Your task to perform on an android device: show emergency info Image 0: 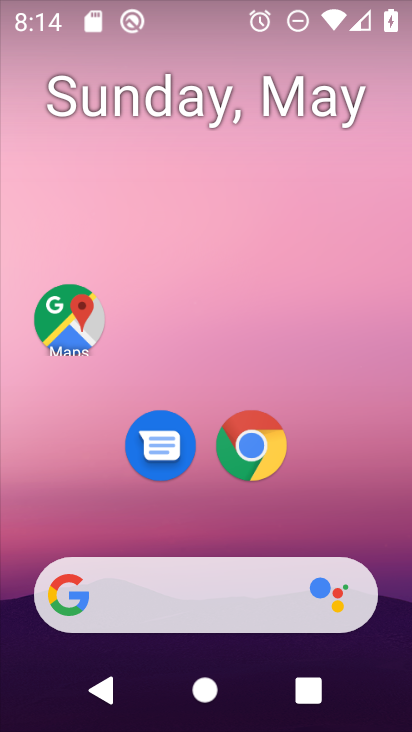
Step 0: drag from (334, 599) to (277, 183)
Your task to perform on an android device: show emergency info Image 1: 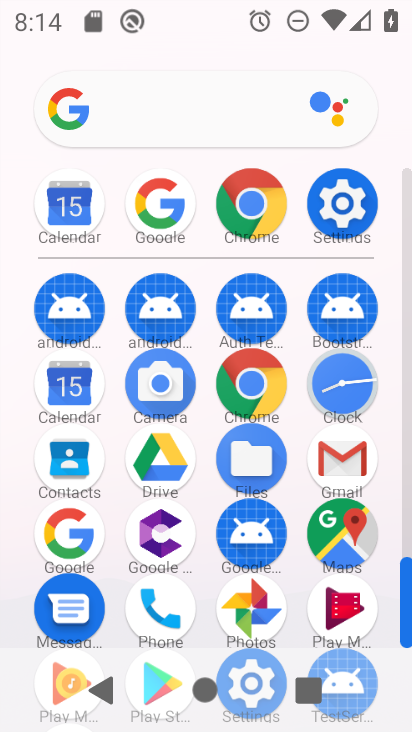
Step 1: click (349, 226)
Your task to perform on an android device: show emergency info Image 2: 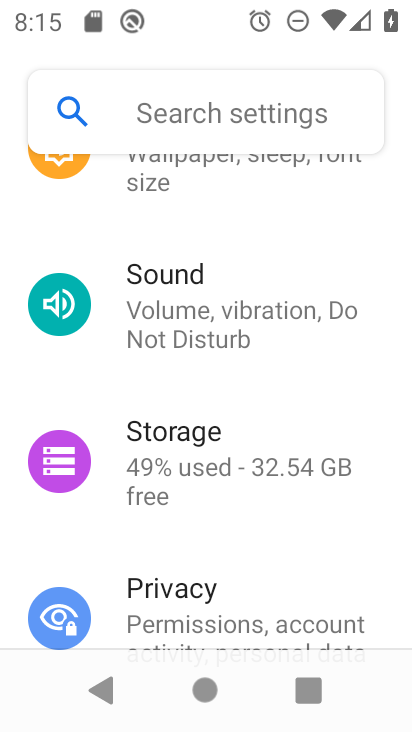
Step 2: drag from (274, 515) to (319, 155)
Your task to perform on an android device: show emergency info Image 3: 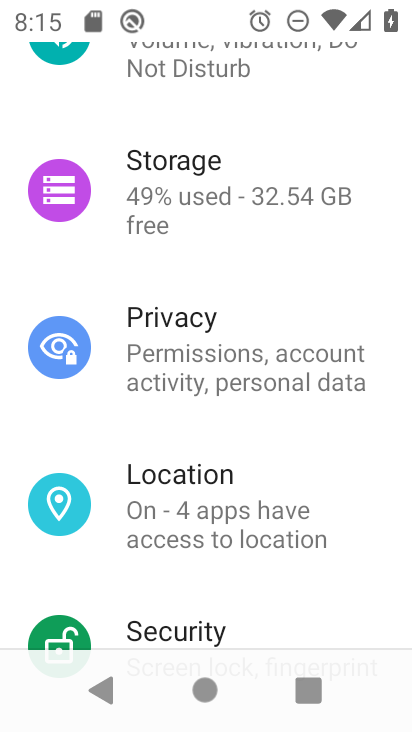
Step 3: drag from (297, 478) to (360, 173)
Your task to perform on an android device: show emergency info Image 4: 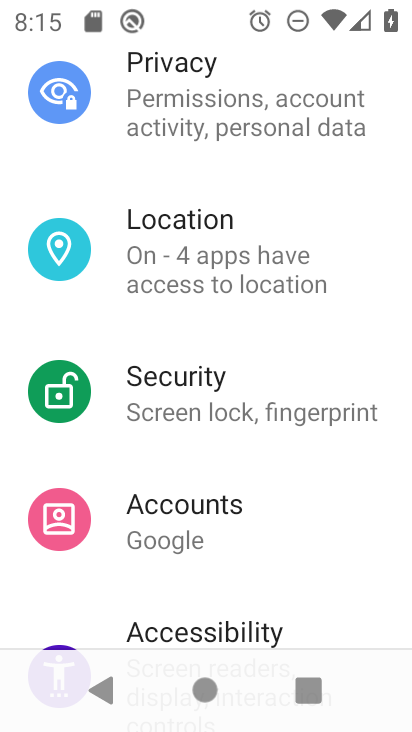
Step 4: drag from (247, 451) to (255, 342)
Your task to perform on an android device: show emergency info Image 5: 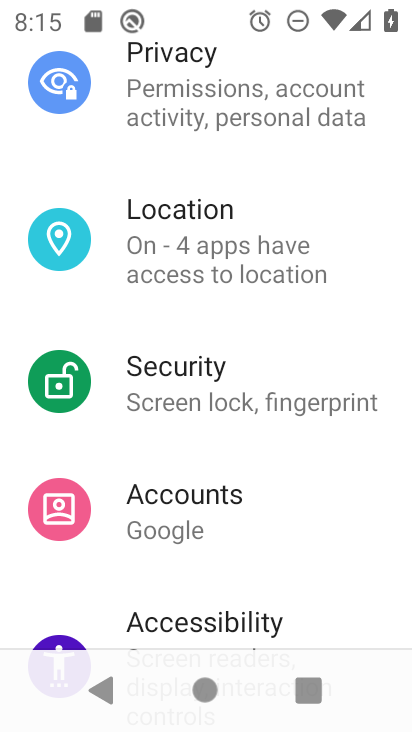
Step 5: drag from (236, 535) to (291, 306)
Your task to perform on an android device: show emergency info Image 6: 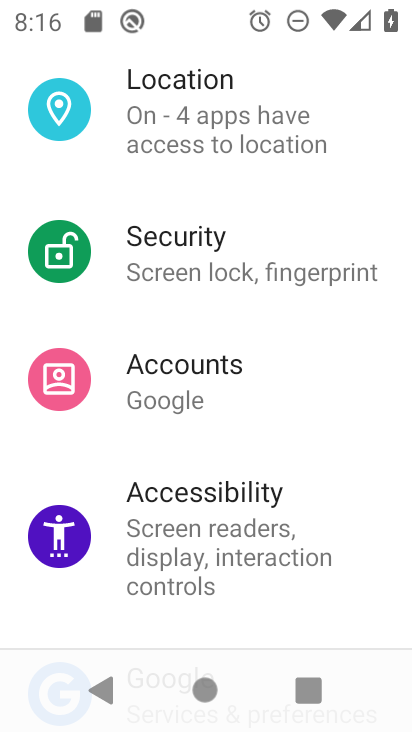
Step 6: drag from (272, 406) to (319, 161)
Your task to perform on an android device: show emergency info Image 7: 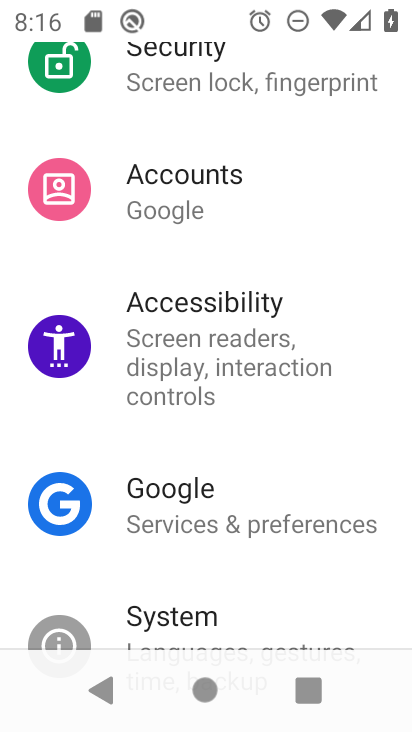
Step 7: drag from (149, 575) to (219, 90)
Your task to perform on an android device: show emergency info Image 8: 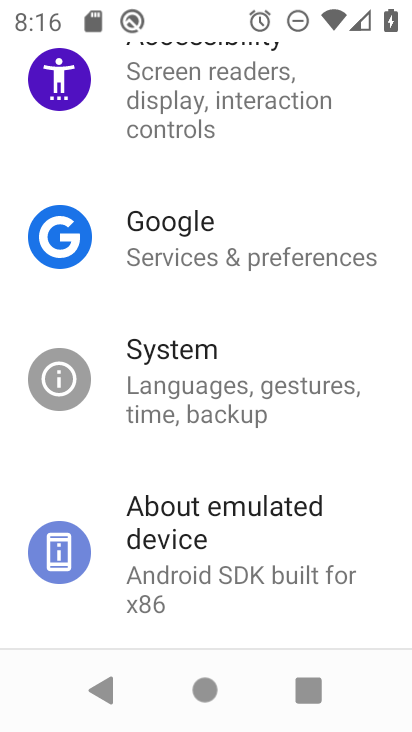
Step 8: drag from (213, 605) to (257, 345)
Your task to perform on an android device: show emergency info Image 9: 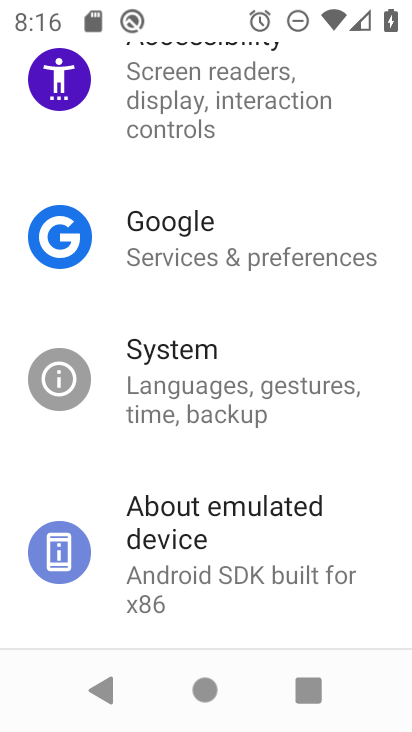
Step 9: click (253, 553)
Your task to perform on an android device: show emergency info Image 10: 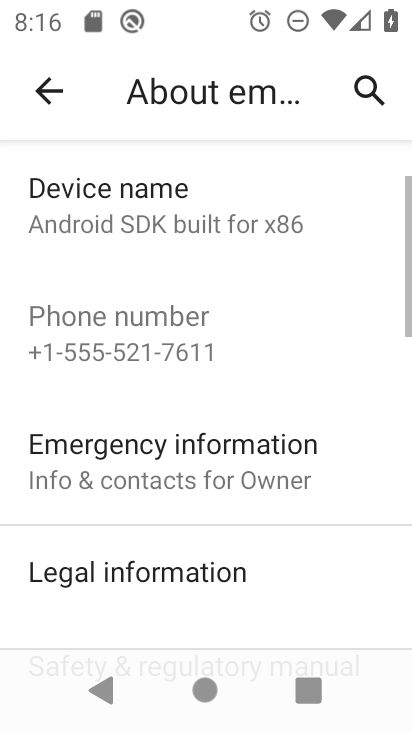
Step 10: drag from (253, 553) to (256, 472)
Your task to perform on an android device: show emergency info Image 11: 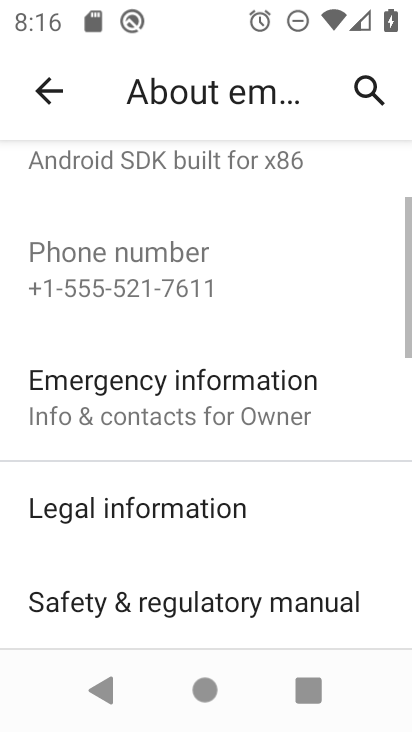
Step 11: click (259, 392)
Your task to perform on an android device: show emergency info Image 12: 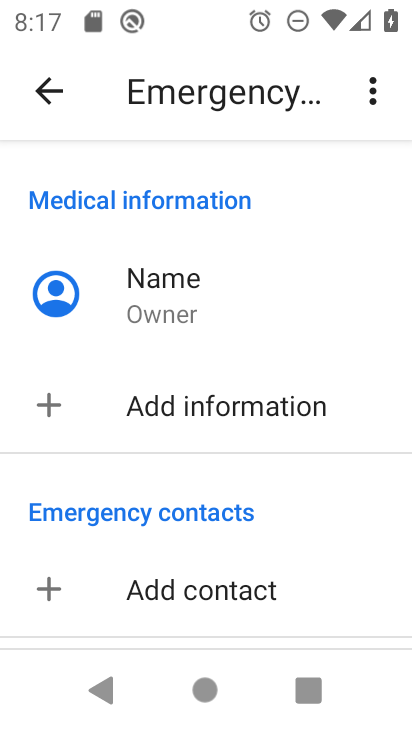
Step 12: task complete